Your task to perform on an android device: Go to Reddit.com Image 0: 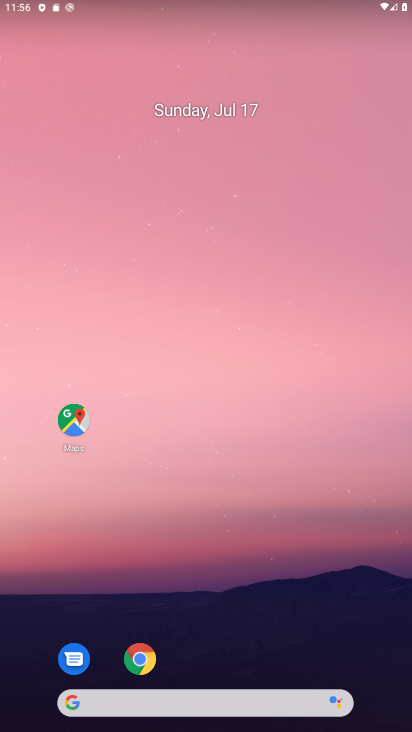
Step 0: drag from (176, 205) to (176, 147)
Your task to perform on an android device: Go to Reddit.com Image 1: 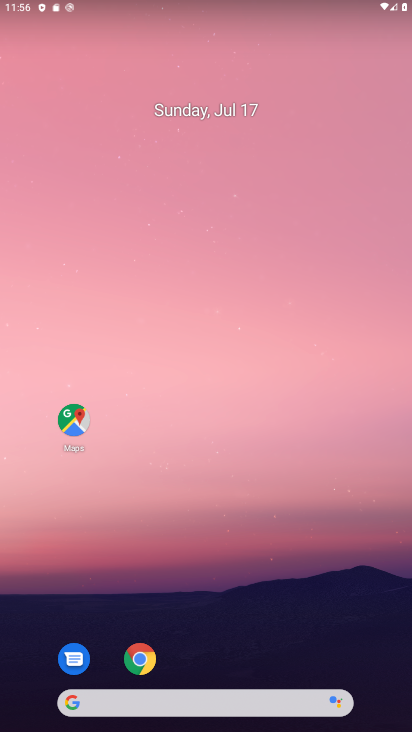
Step 1: drag from (201, 413) to (177, 112)
Your task to perform on an android device: Go to Reddit.com Image 2: 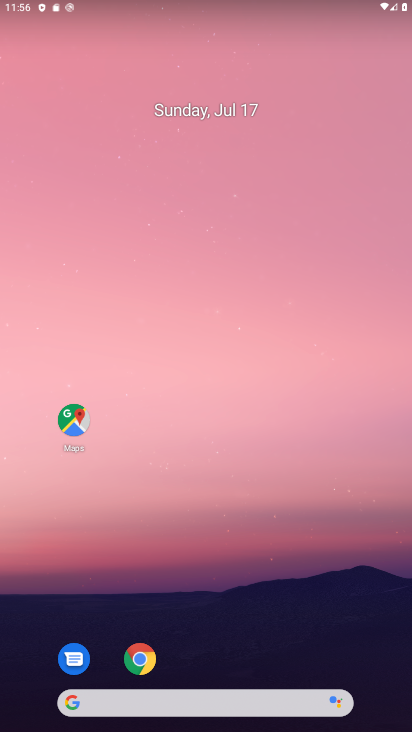
Step 2: drag from (208, 647) to (224, 116)
Your task to perform on an android device: Go to Reddit.com Image 3: 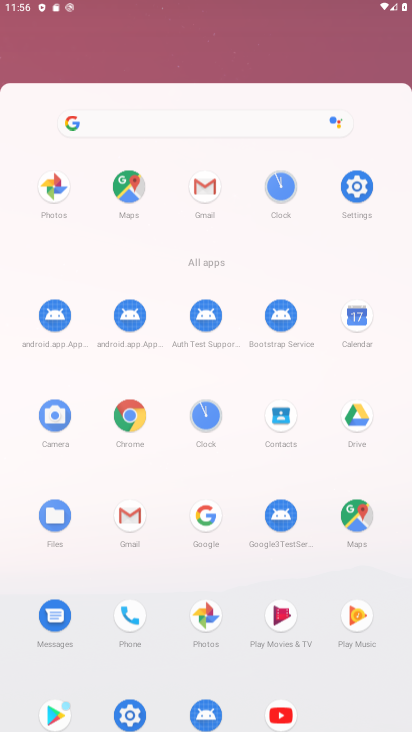
Step 3: drag from (181, 578) to (159, 73)
Your task to perform on an android device: Go to Reddit.com Image 4: 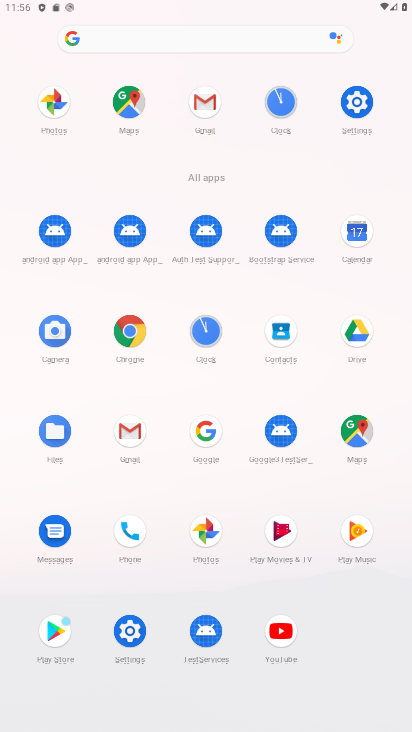
Step 4: drag from (124, 538) to (143, 1)
Your task to perform on an android device: Go to Reddit.com Image 5: 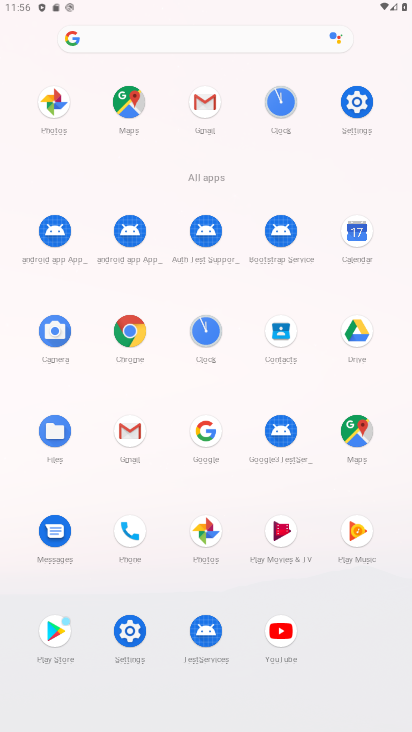
Step 5: click (123, 324)
Your task to perform on an android device: Go to Reddit.com Image 6: 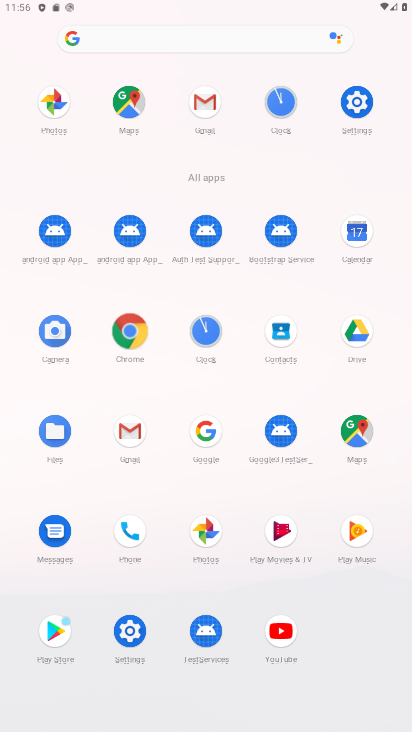
Step 6: click (124, 326)
Your task to perform on an android device: Go to Reddit.com Image 7: 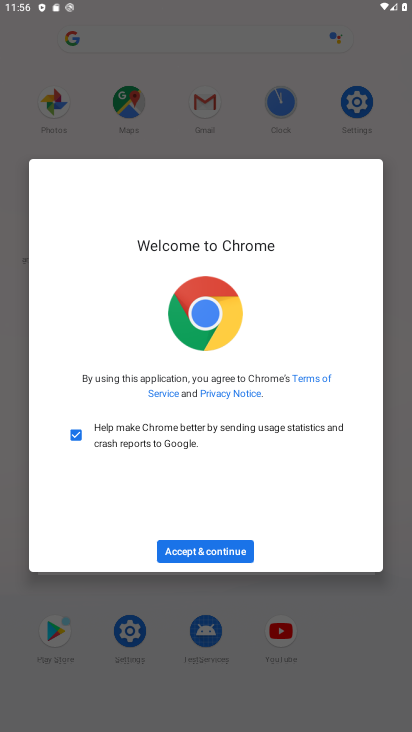
Step 7: click (212, 546)
Your task to perform on an android device: Go to Reddit.com Image 8: 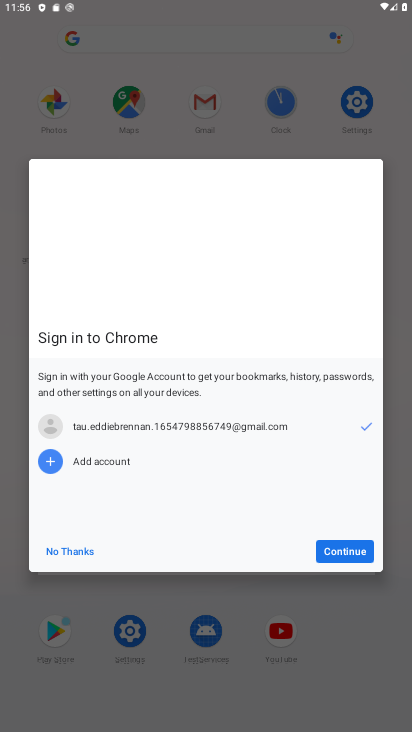
Step 8: click (208, 551)
Your task to perform on an android device: Go to Reddit.com Image 9: 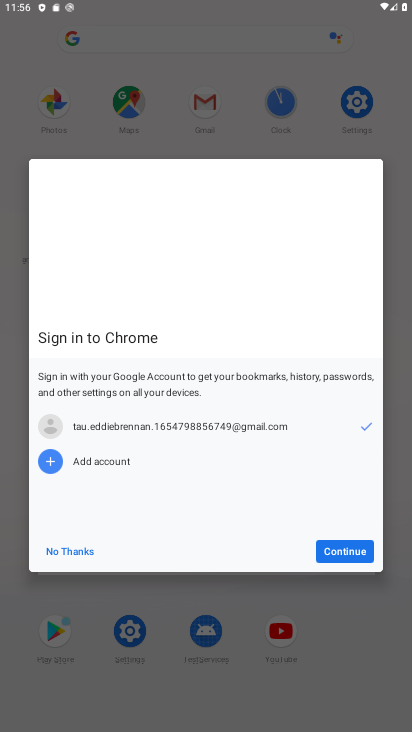
Step 9: click (356, 546)
Your task to perform on an android device: Go to Reddit.com Image 10: 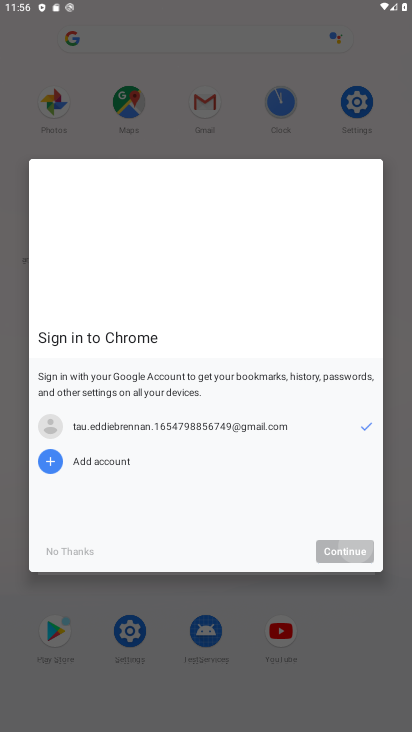
Step 10: click (357, 545)
Your task to perform on an android device: Go to Reddit.com Image 11: 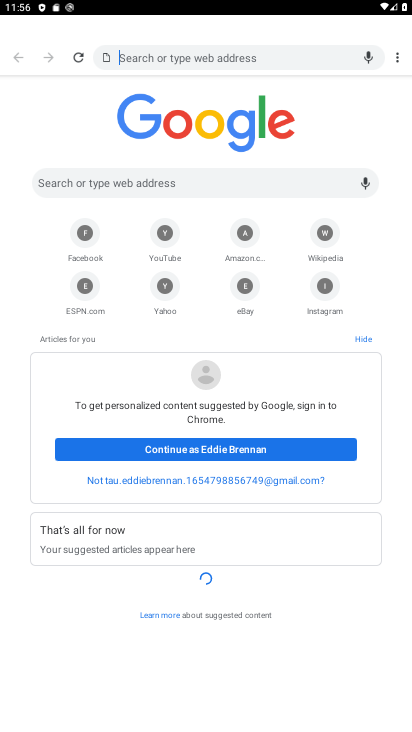
Step 11: click (138, 56)
Your task to perform on an android device: Go to Reddit.com Image 12: 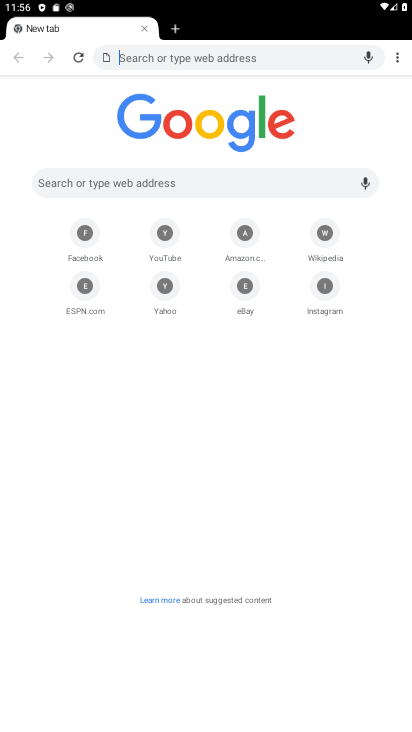
Step 12: click (138, 56)
Your task to perform on an android device: Go to Reddit.com Image 13: 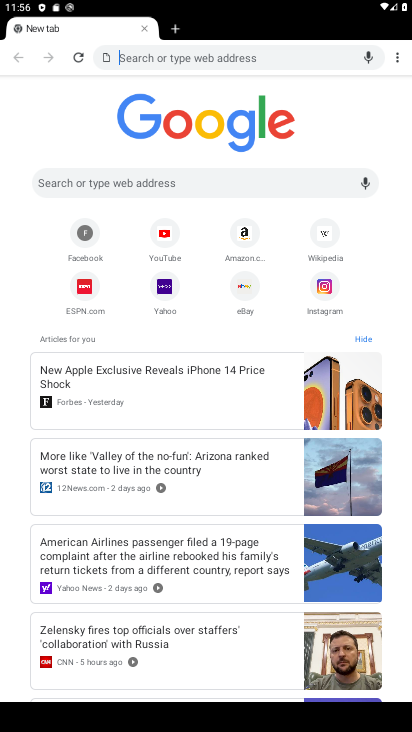
Step 13: type "Reddit.com"
Your task to perform on an android device: Go to Reddit.com Image 14: 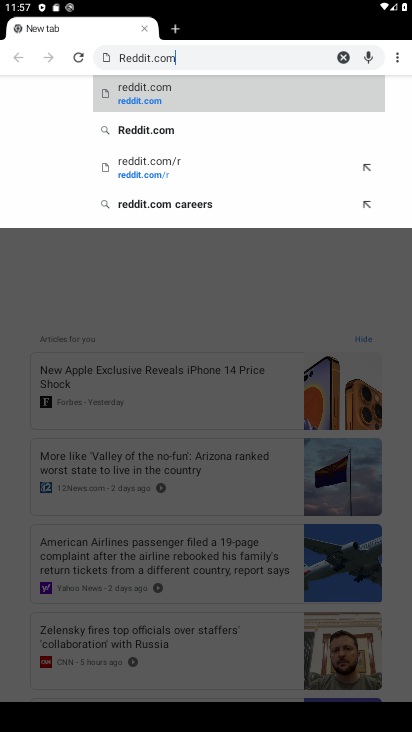
Step 14: click (137, 91)
Your task to perform on an android device: Go to Reddit.com Image 15: 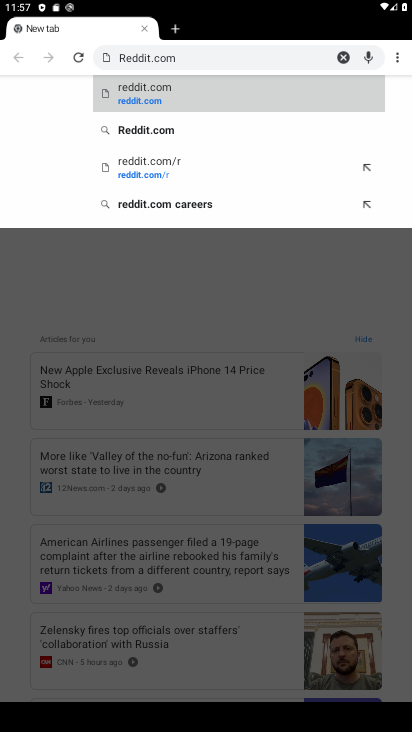
Step 15: click (137, 91)
Your task to perform on an android device: Go to Reddit.com Image 16: 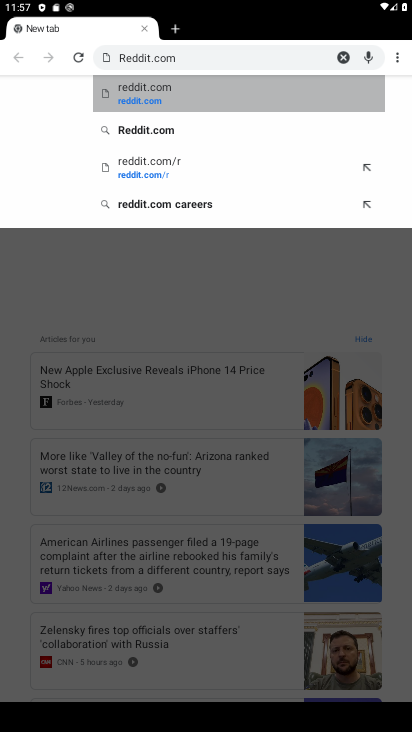
Step 16: click (139, 91)
Your task to perform on an android device: Go to Reddit.com Image 17: 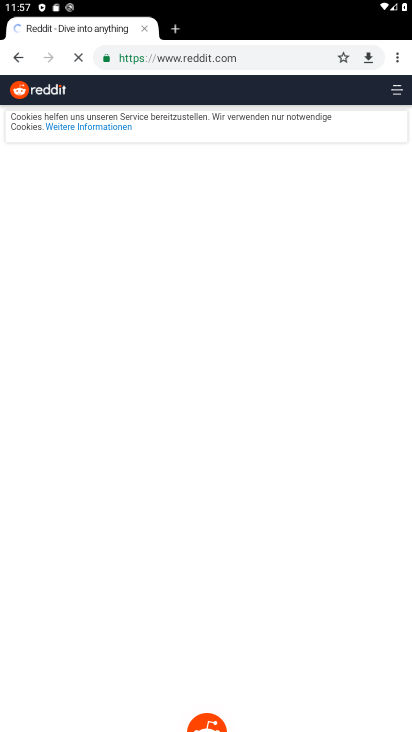
Step 17: task complete